Your task to perform on an android device: Open Chrome and go to the settings page Image 0: 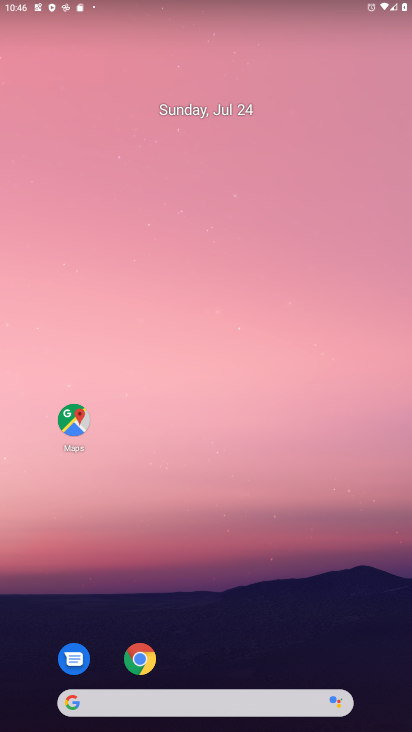
Step 0: click (135, 652)
Your task to perform on an android device: Open Chrome and go to the settings page Image 1: 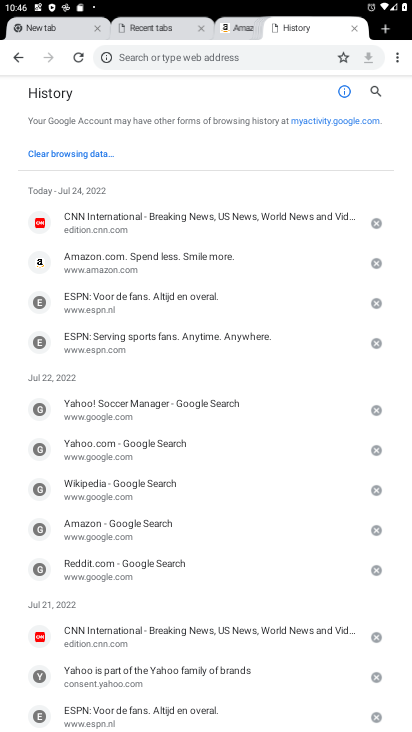
Step 1: click (396, 55)
Your task to perform on an android device: Open Chrome and go to the settings page Image 2: 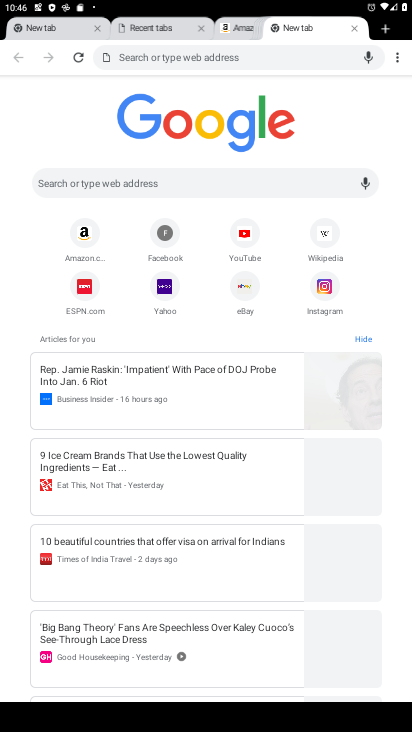
Step 2: click (396, 55)
Your task to perform on an android device: Open Chrome and go to the settings page Image 3: 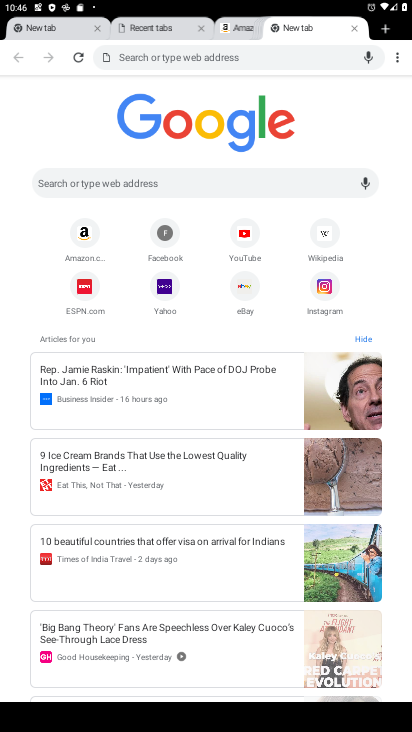
Step 3: click (396, 55)
Your task to perform on an android device: Open Chrome and go to the settings page Image 4: 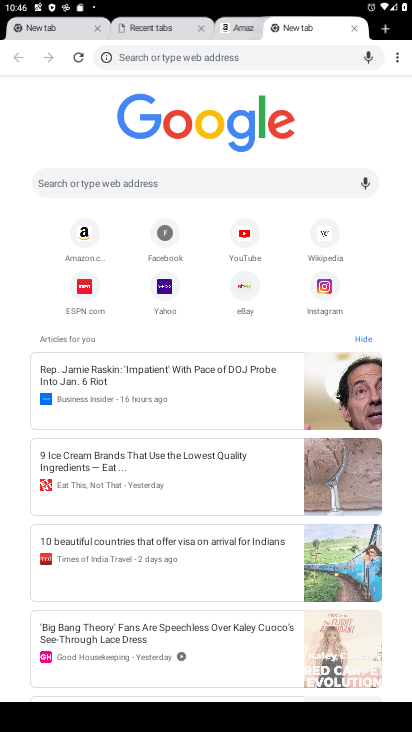
Step 4: click (396, 55)
Your task to perform on an android device: Open Chrome and go to the settings page Image 5: 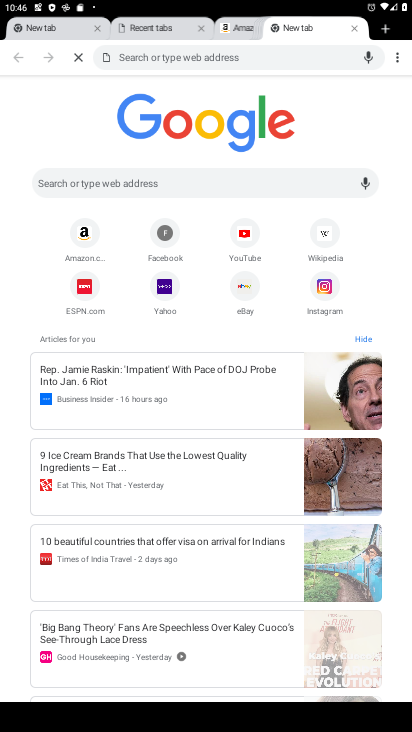
Step 5: click (396, 55)
Your task to perform on an android device: Open Chrome and go to the settings page Image 6: 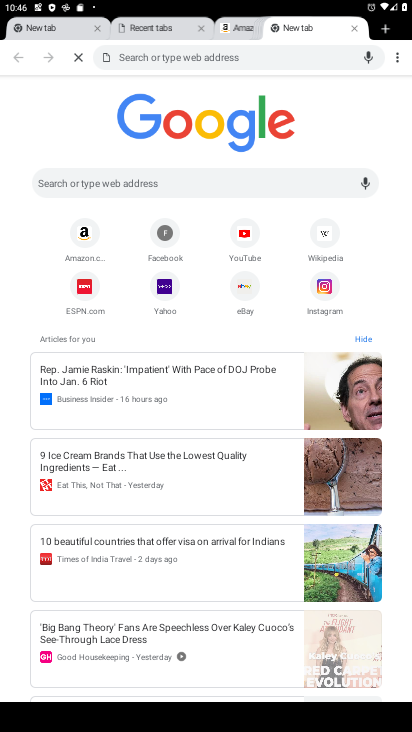
Step 6: click (396, 55)
Your task to perform on an android device: Open Chrome and go to the settings page Image 7: 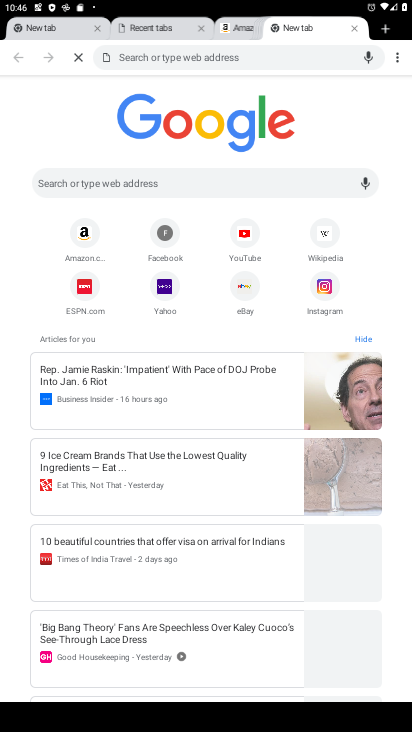
Step 7: click (396, 55)
Your task to perform on an android device: Open Chrome and go to the settings page Image 8: 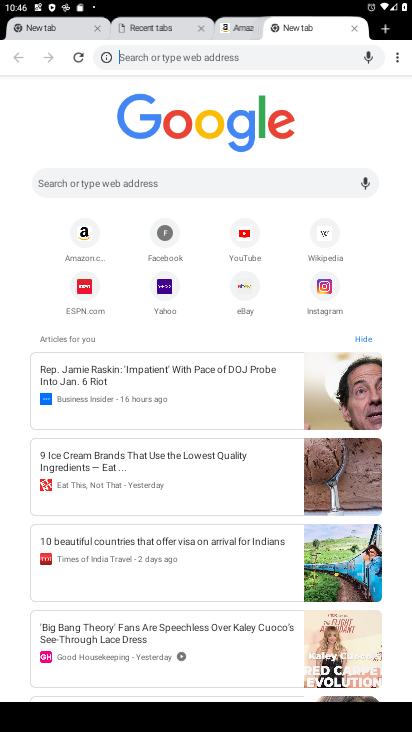
Step 8: click (396, 55)
Your task to perform on an android device: Open Chrome and go to the settings page Image 9: 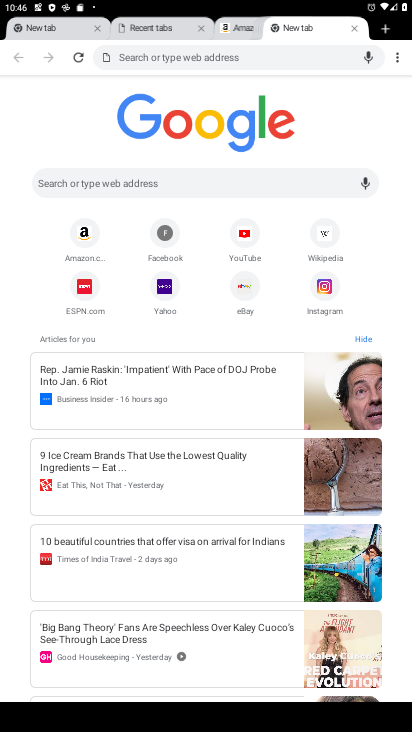
Step 9: click (396, 55)
Your task to perform on an android device: Open Chrome and go to the settings page Image 10: 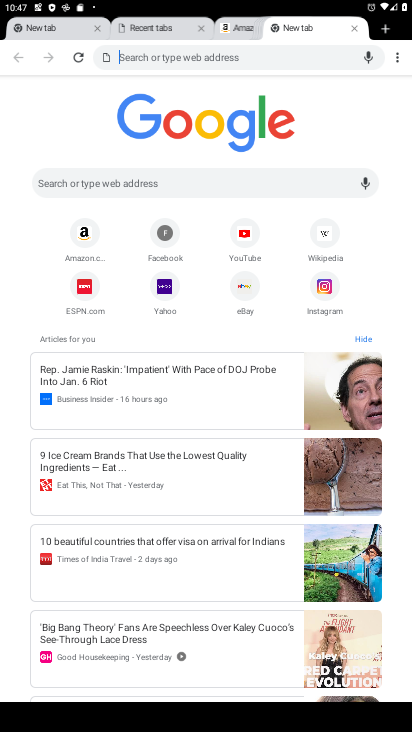
Step 10: click (396, 55)
Your task to perform on an android device: Open Chrome and go to the settings page Image 11: 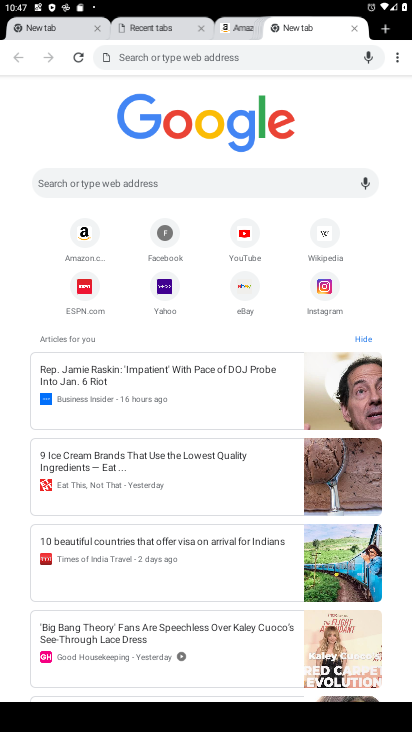
Step 11: click (396, 55)
Your task to perform on an android device: Open Chrome and go to the settings page Image 12: 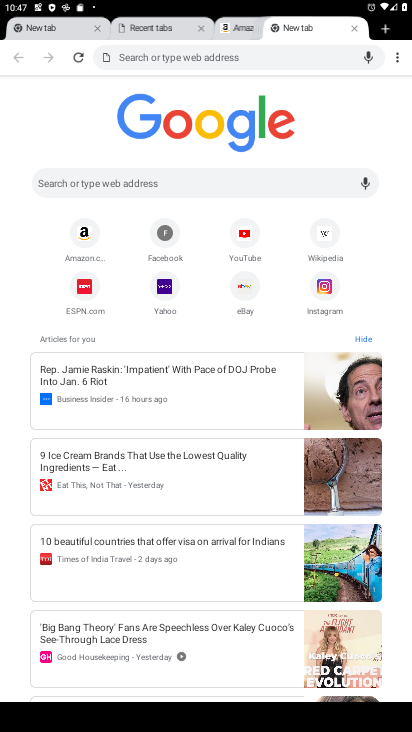
Step 12: click (400, 57)
Your task to perform on an android device: Open Chrome and go to the settings page Image 13: 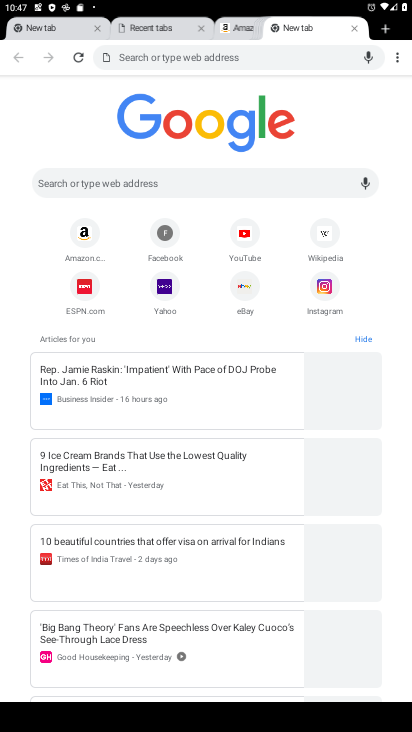
Step 13: click (400, 58)
Your task to perform on an android device: Open Chrome and go to the settings page Image 14: 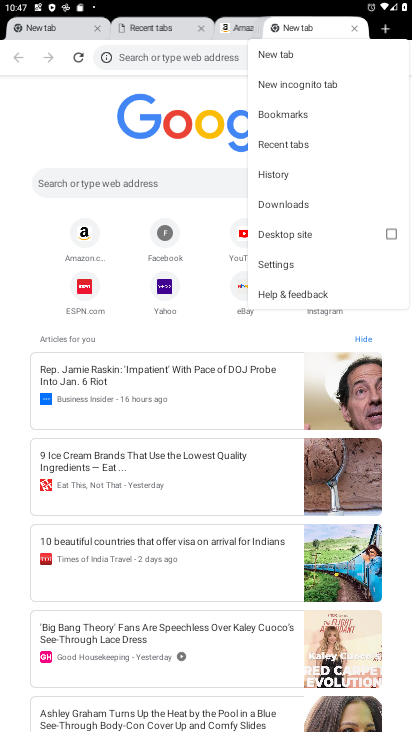
Step 14: click (276, 261)
Your task to perform on an android device: Open Chrome and go to the settings page Image 15: 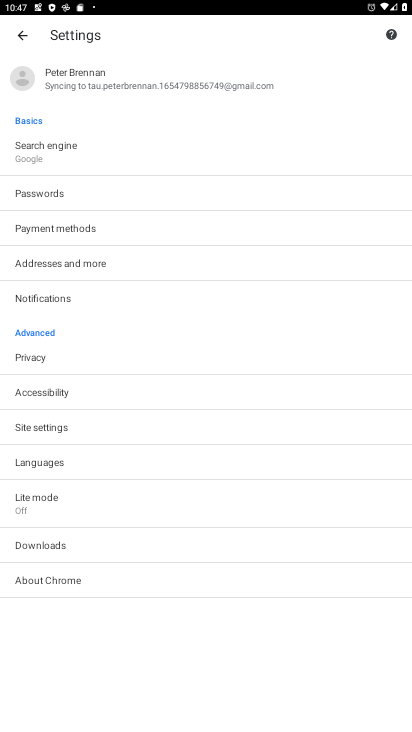
Step 15: task complete